Your task to perform on an android device: open chrome and create a bookmark for the current page Image 0: 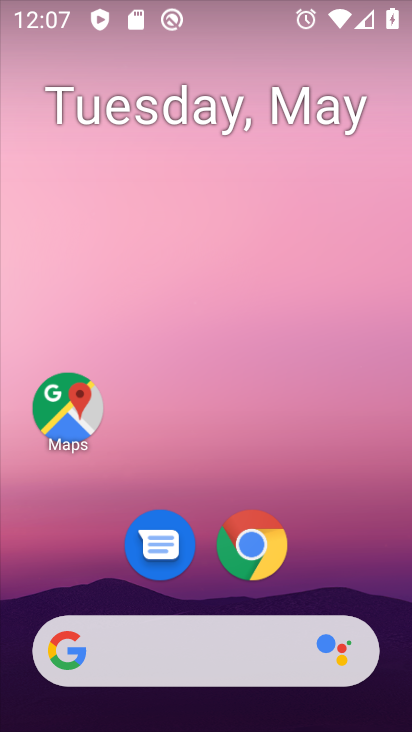
Step 0: click (250, 540)
Your task to perform on an android device: open chrome and create a bookmark for the current page Image 1: 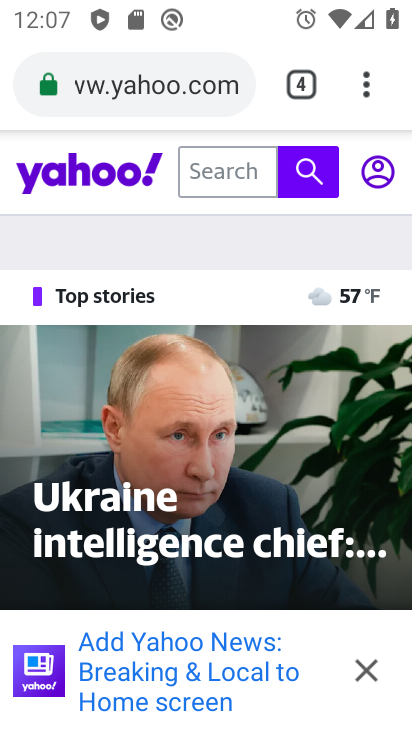
Step 1: click (367, 95)
Your task to perform on an android device: open chrome and create a bookmark for the current page Image 2: 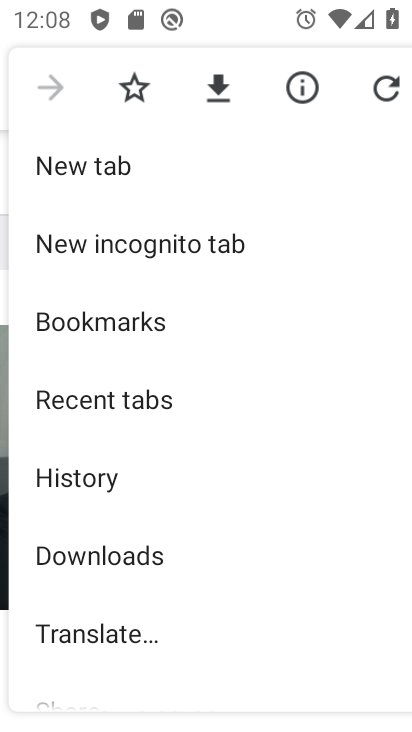
Step 2: click (210, 311)
Your task to perform on an android device: open chrome and create a bookmark for the current page Image 3: 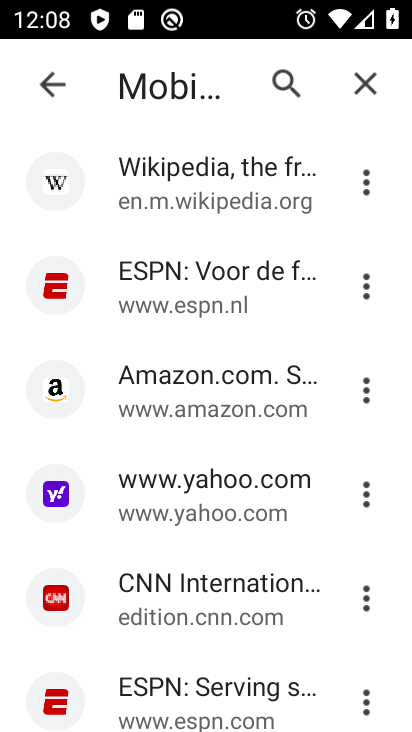
Step 3: click (281, 97)
Your task to perform on an android device: open chrome and create a bookmark for the current page Image 4: 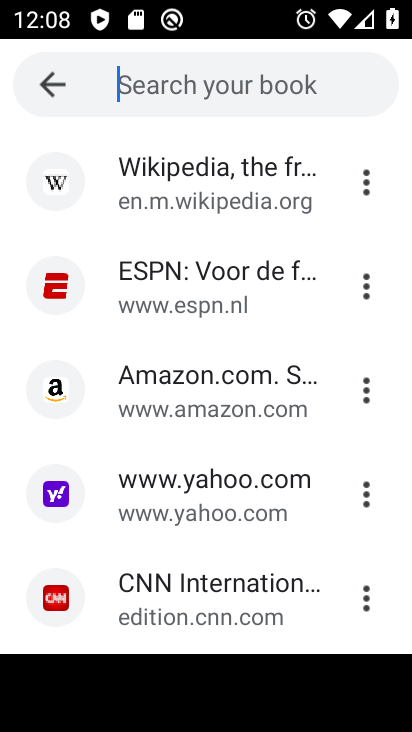
Step 4: task complete